Your task to perform on an android device: Open display settings Image 0: 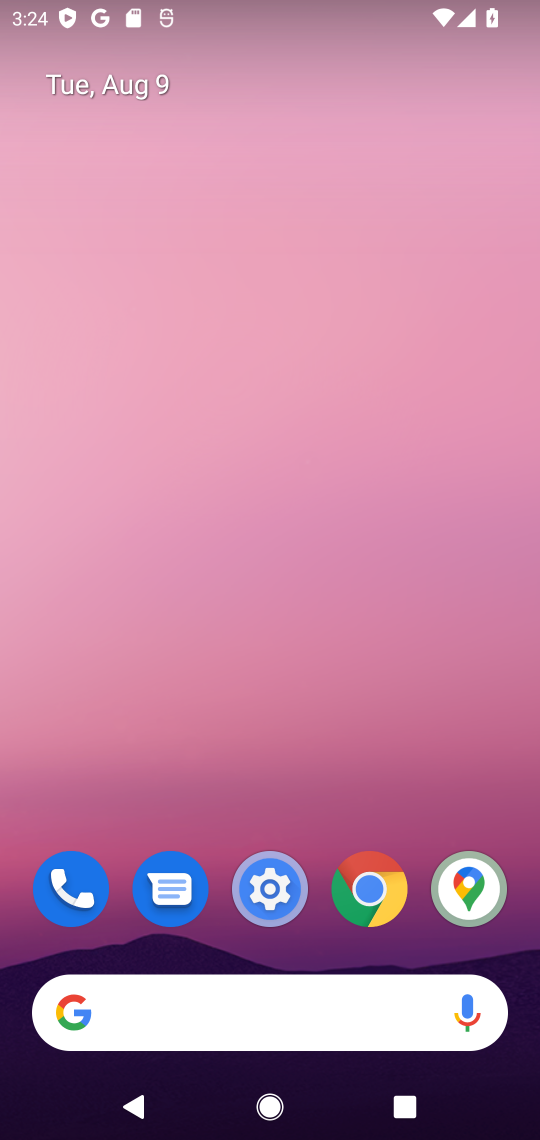
Step 0: click (277, 887)
Your task to perform on an android device: Open display settings Image 1: 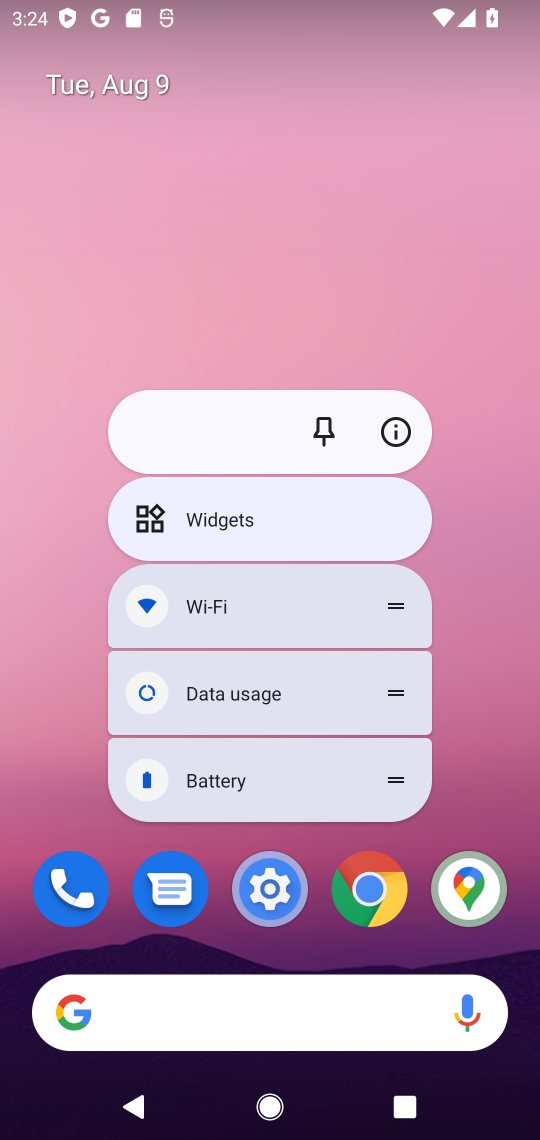
Step 1: click (277, 887)
Your task to perform on an android device: Open display settings Image 2: 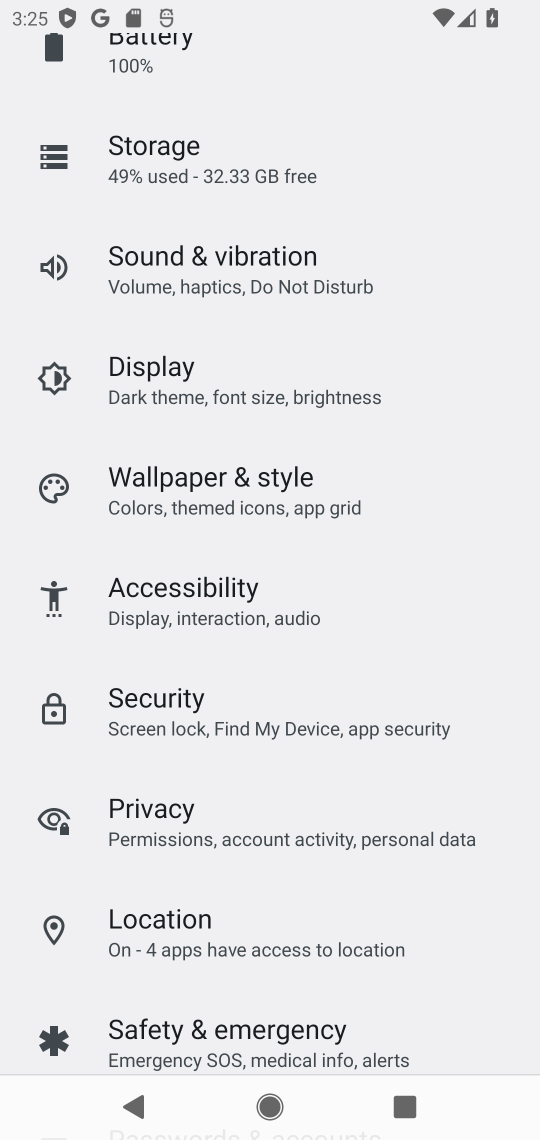
Step 2: click (265, 393)
Your task to perform on an android device: Open display settings Image 3: 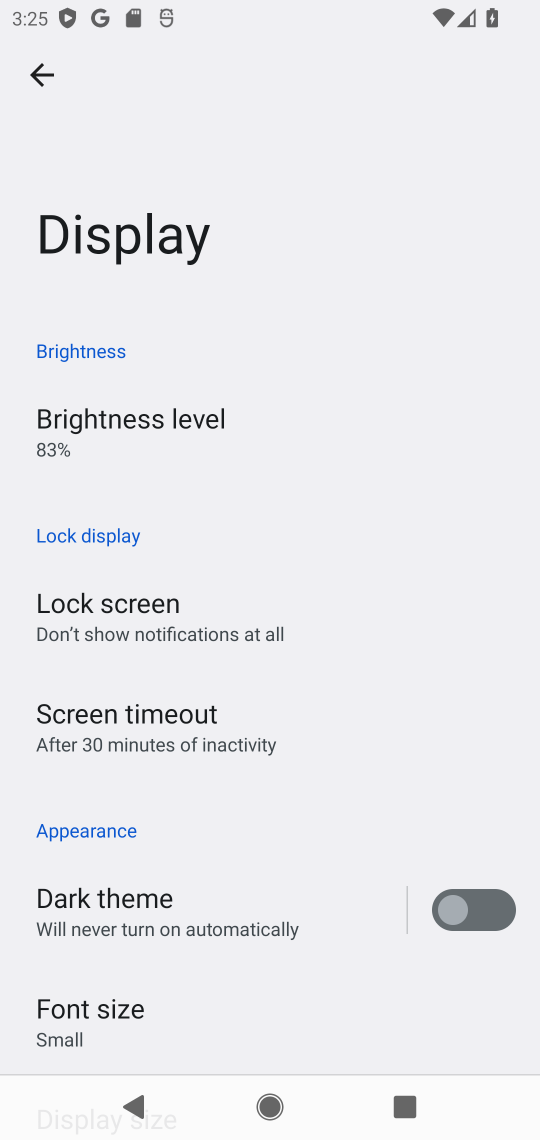
Step 3: task complete